Your task to perform on an android device: open app "Indeed Job Search" (install if not already installed) and enter user name: "quixotic@inbox.com" and password: "microphones" Image 0: 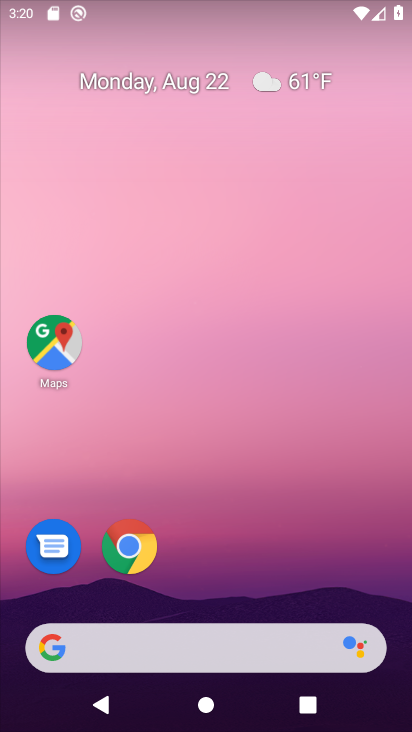
Step 0: drag from (381, 569) to (329, 90)
Your task to perform on an android device: open app "Indeed Job Search" (install if not already installed) and enter user name: "quixotic@inbox.com" and password: "microphones" Image 1: 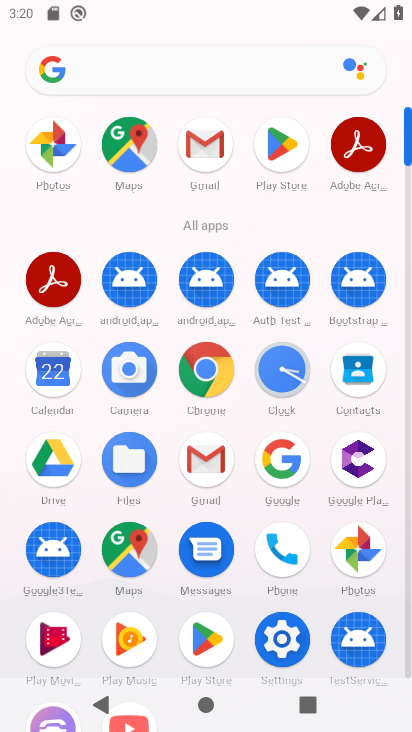
Step 1: click (208, 639)
Your task to perform on an android device: open app "Indeed Job Search" (install if not already installed) and enter user name: "quixotic@inbox.com" and password: "microphones" Image 2: 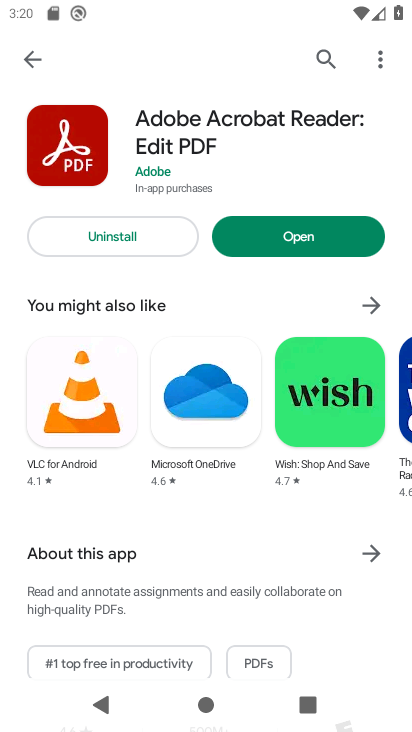
Step 2: click (320, 54)
Your task to perform on an android device: open app "Indeed Job Search" (install if not already installed) and enter user name: "quixotic@inbox.com" and password: "microphones" Image 3: 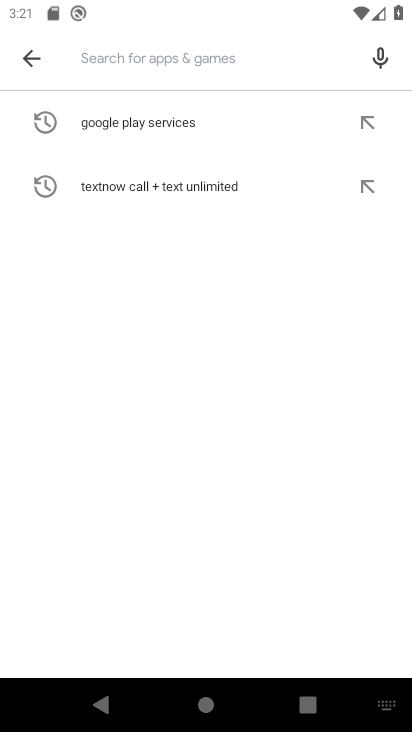
Step 3: type "Indeed Job Search"
Your task to perform on an android device: open app "Indeed Job Search" (install if not already installed) and enter user name: "quixotic@inbox.com" and password: "microphones" Image 4: 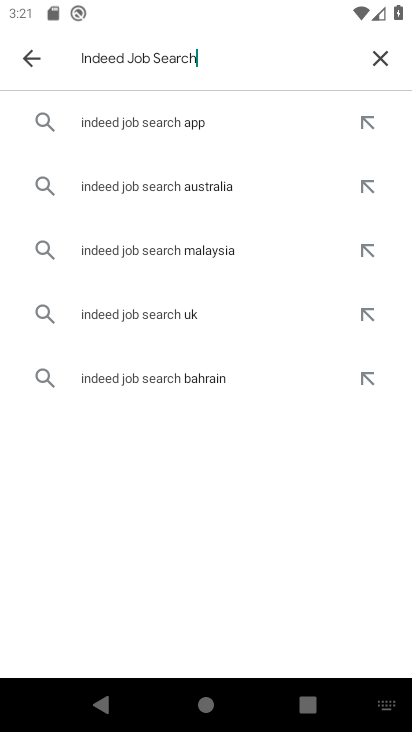
Step 4: click (168, 119)
Your task to perform on an android device: open app "Indeed Job Search" (install if not already installed) and enter user name: "quixotic@inbox.com" and password: "microphones" Image 5: 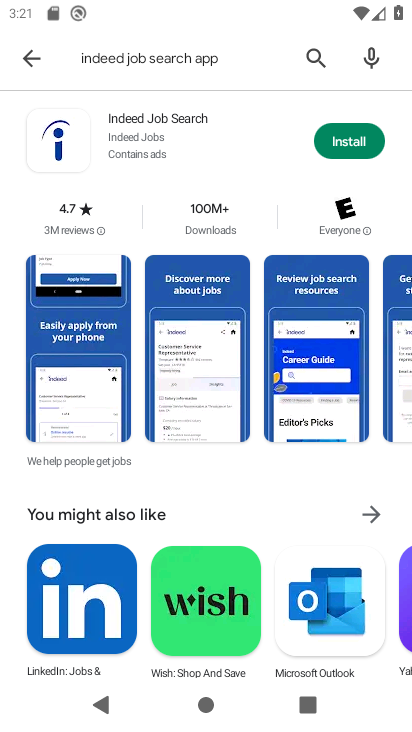
Step 5: click (353, 140)
Your task to perform on an android device: open app "Indeed Job Search" (install if not already installed) and enter user name: "quixotic@inbox.com" and password: "microphones" Image 6: 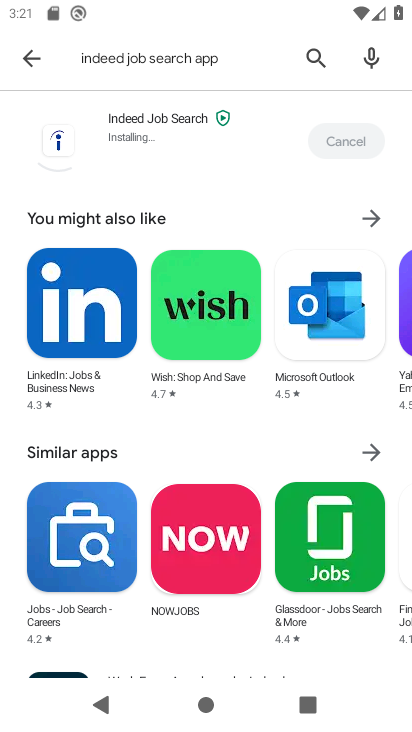
Step 6: click (139, 122)
Your task to perform on an android device: open app "Indeed Job Search" (install if not already installed) and enter user name: "quixotic@inbox.com" and password: "microphones" Image 7: 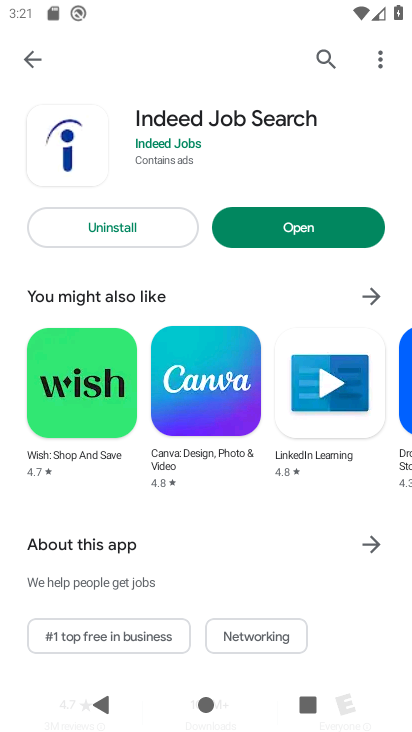
Step 7: click (297, 227)
Your task to perform on an android device: open app "Indeed Job Search" (install if not already installed) and enter user name: "quixotic@inbox.com" and password: "microphones" Image 8: 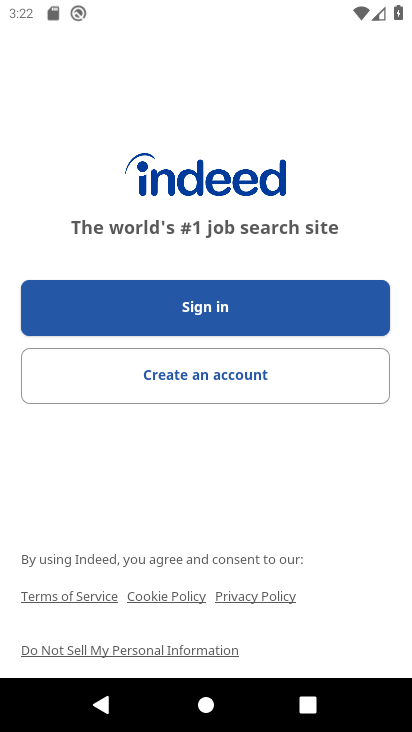
Step 8: click (201, 308)
Your task to perform on an android device: open app "Indeed Job Search" (install if not already installed) and enter user name: "quixotic@inbox.com" and password: "microphones" Image 9: 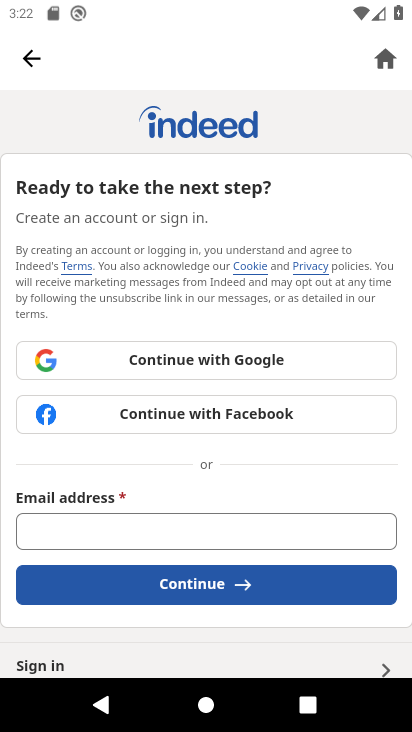
Step 9: click (75, 528)
Your task to perform on an android device: open app "Indeed Job Search" (install if not already installed) and enter user name: "quixotic@inbox.com" and password: "microphones" Image 10: 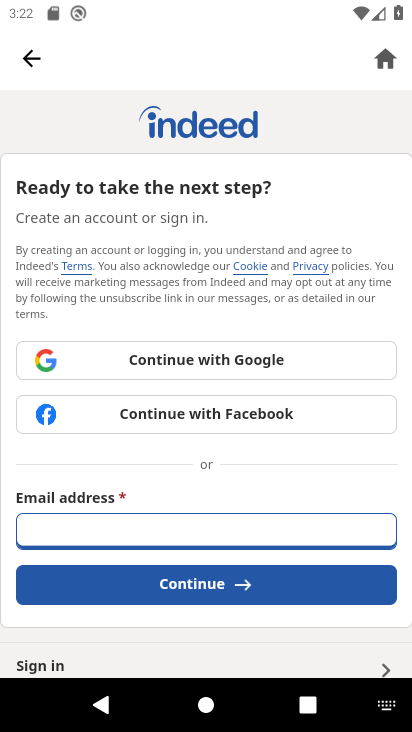
Step 10: type "quixotic@inbox.com"
Your task to perform on an android device: open app "Indeed Job Search" (install if not already installed) and enter user name: "quixotic@inbox.com" and password: "microphones" Image 11: 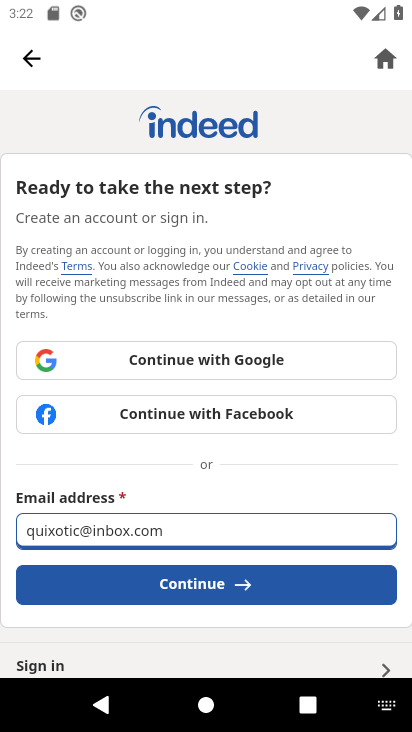
Step 11: click (215, 590)
Your task to perform on an android device: open app "Indeed Job Search" (install if not already installed) and enter user name: "quixotic@inbox.com" and password: "microphones" Image 12: 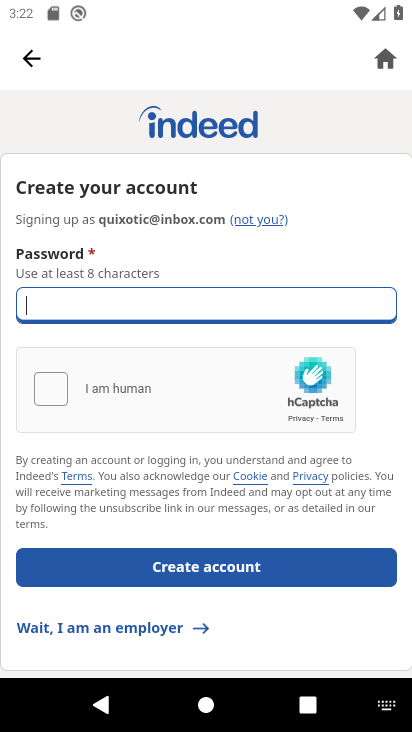
Step 12: type "microphones"
Your task to perform on an android device: open app "Indeed Job Search" (install if not already installed) and enter user name: "quixotic@inbox.com" and password: "microphones" Image 13: 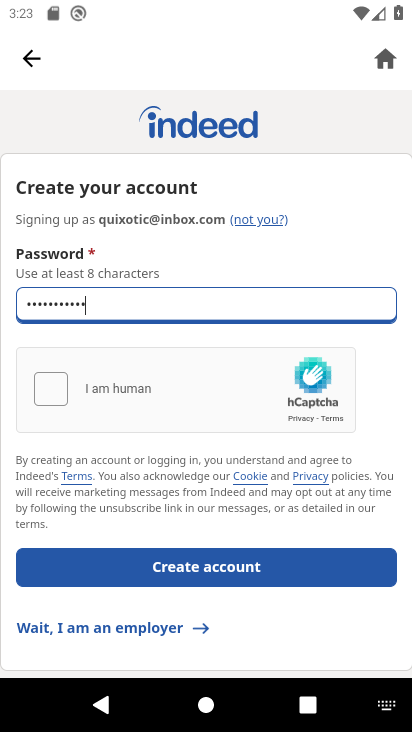
Step 13: task complete